Your task to perform on an android device: Is it going to rain this weekend? Image 0: 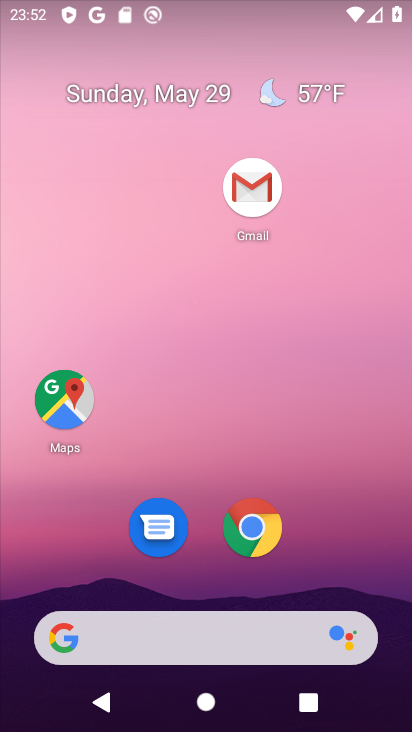
Step 0: drag from (323, 485) to (284, 61)
Your task to perform on an android device: Is it going to rain this weekend? Image 1: 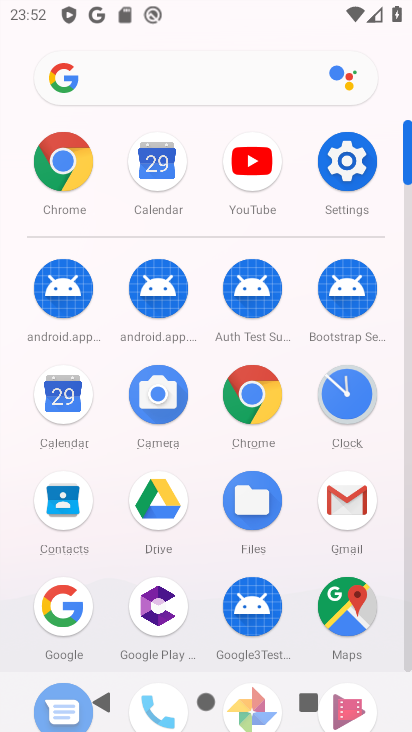
Step 1: click (60, 607)
Your task to perform on an android device: Is it going to rain this weekend? Image 2: 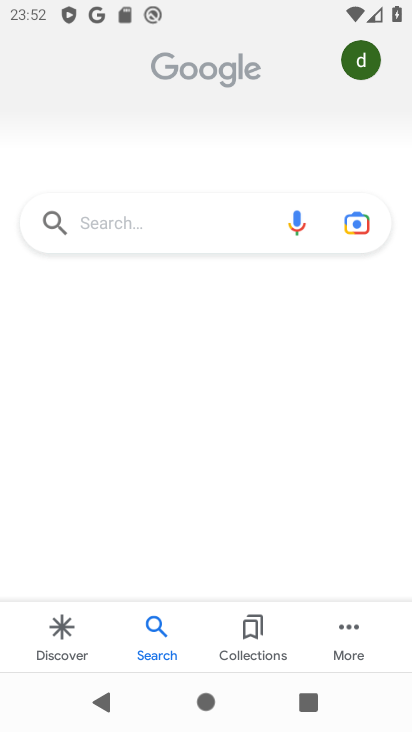
Step 2: click (206, 233)
Your task to perform on an android device: Is it going to rain this weekend? Image 3: 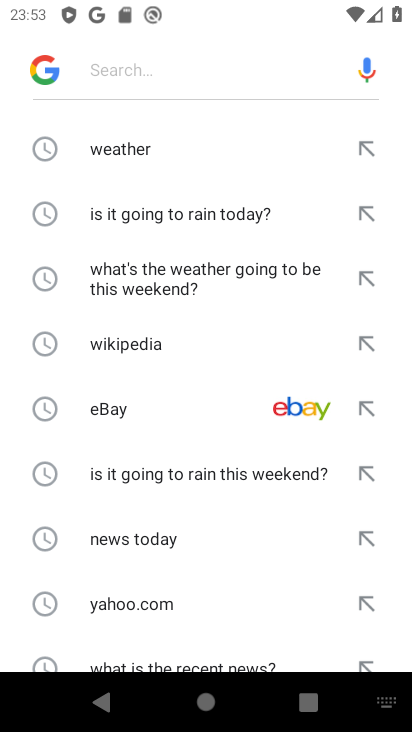
Step 3: type "Is it going to rain this weekend?"
Your task to perform on an android device: Is it going to rain this weekend? Image 4: 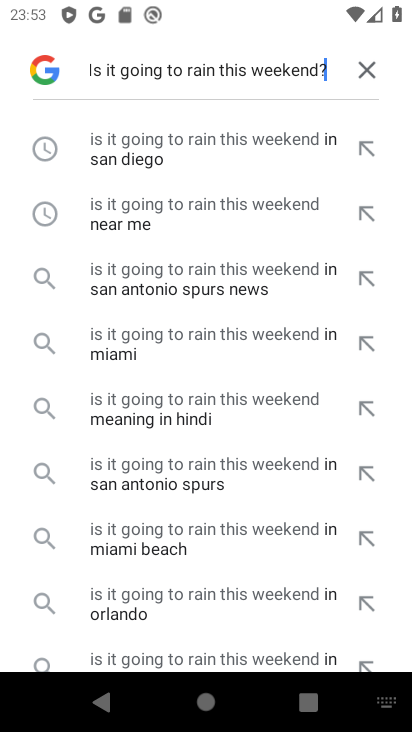
Step 4: click (174, 147)
Your task to perform on an android device: Is it going to rain this weekend? Image 5: 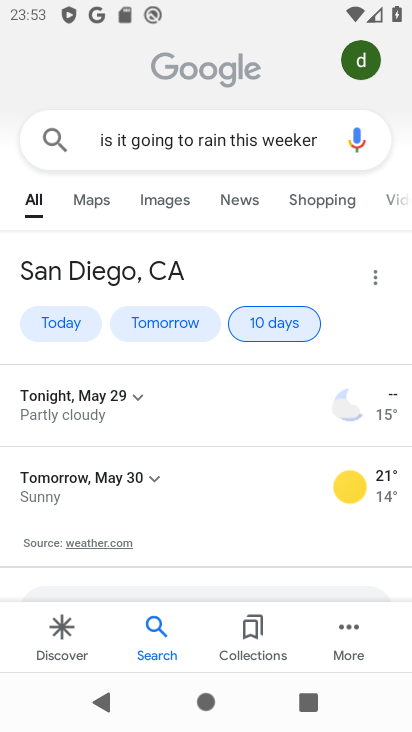
Step 5: task complete